Your task to perform on an android device: open a bookmark in the chrome app Image 0: 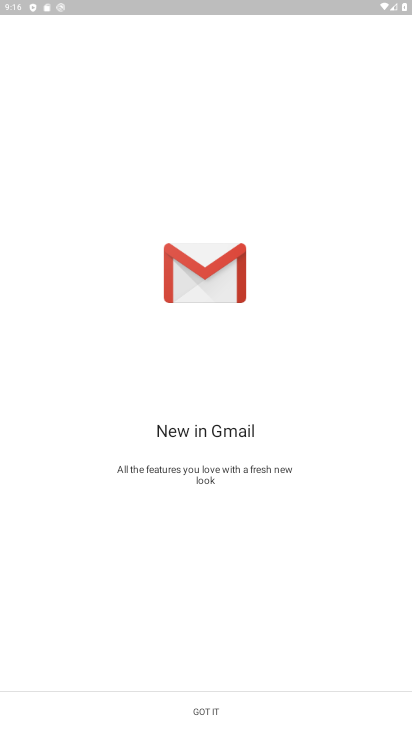
Step 0: press home button
Your task to perform on an android device: open a bookmark in the chrome app Image 1: 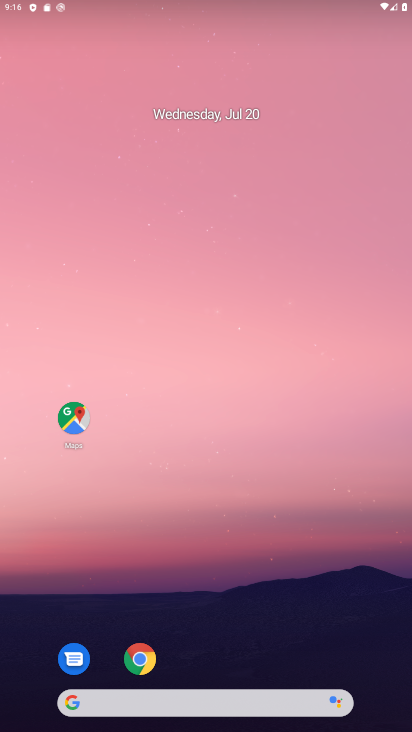
Step 1: drag from (349, 633) to (153, 81)
Your task to perform on an android device: open a bookmark in the chrome app Image 2: 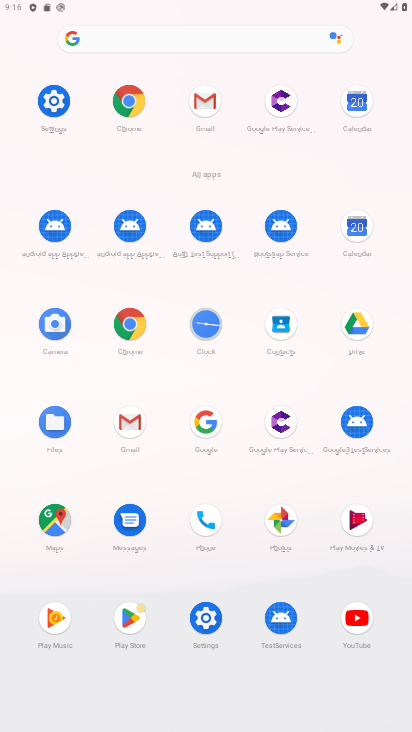
Step 2: click (129, 326)
Your task to perform on an android device: open a bookmark in the chrome app Image 3: 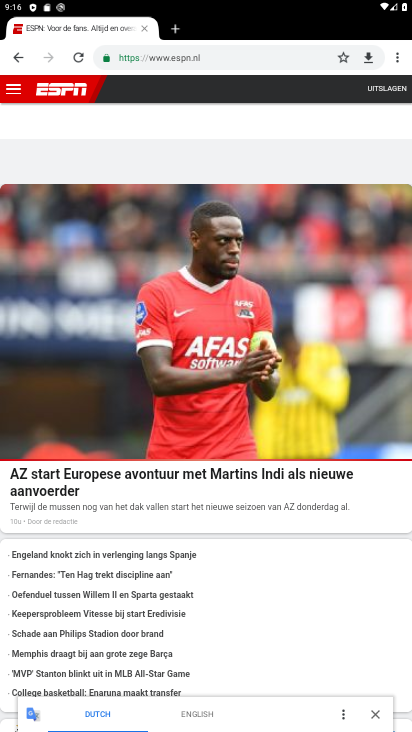
Step 3: drag from (401, 58) to (301, 110)
Your task to perform on an android device: open a bookmark in the chrome app Image 4: 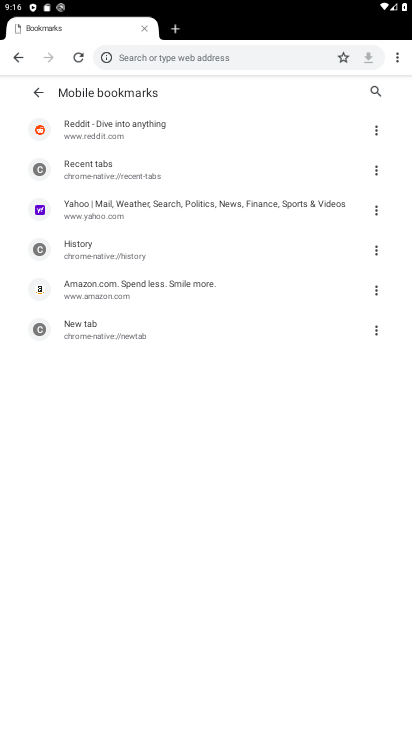
Step 4: click (102, 201)
Your task to perform on an android device: open a bookmark in the chrome app Image 5: 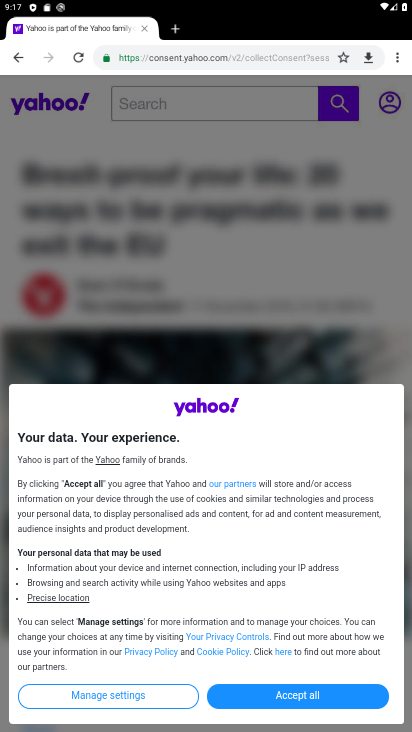
Step 5: task complete